Your task to perform on an android device: open a bookmark in the chrome app Image 0: 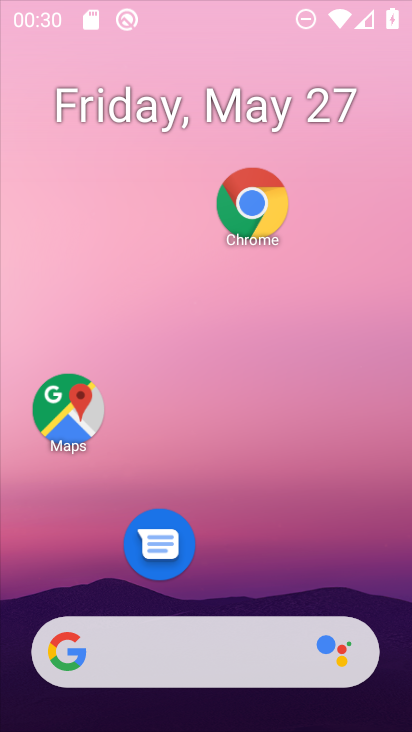
Step 0: drag from (225, 467) to (201, 67)
Your task to perform on an android device: open a bookmark in the chrome app Image 1: 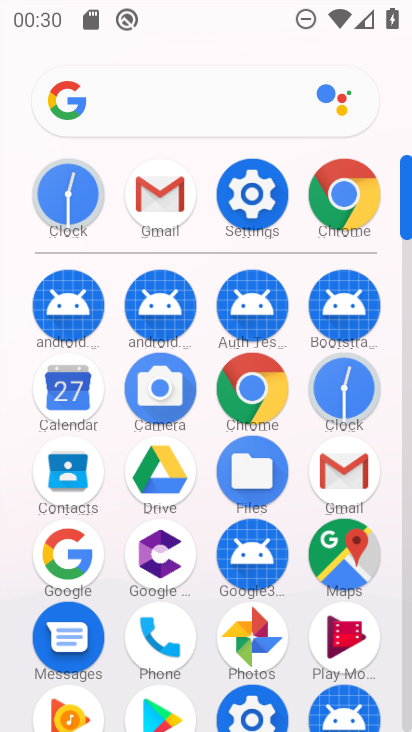
Step 1: click (335, 193)
Your task to perform on an android device: open a bookmark in the chrome app Image 2: 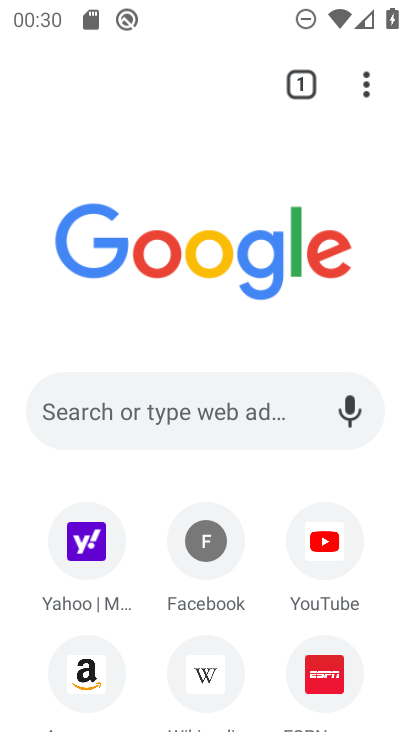
Step 2: task complete